Your task to perform on an android device: open app "AliExpress" (install if not already installed) Image 0: 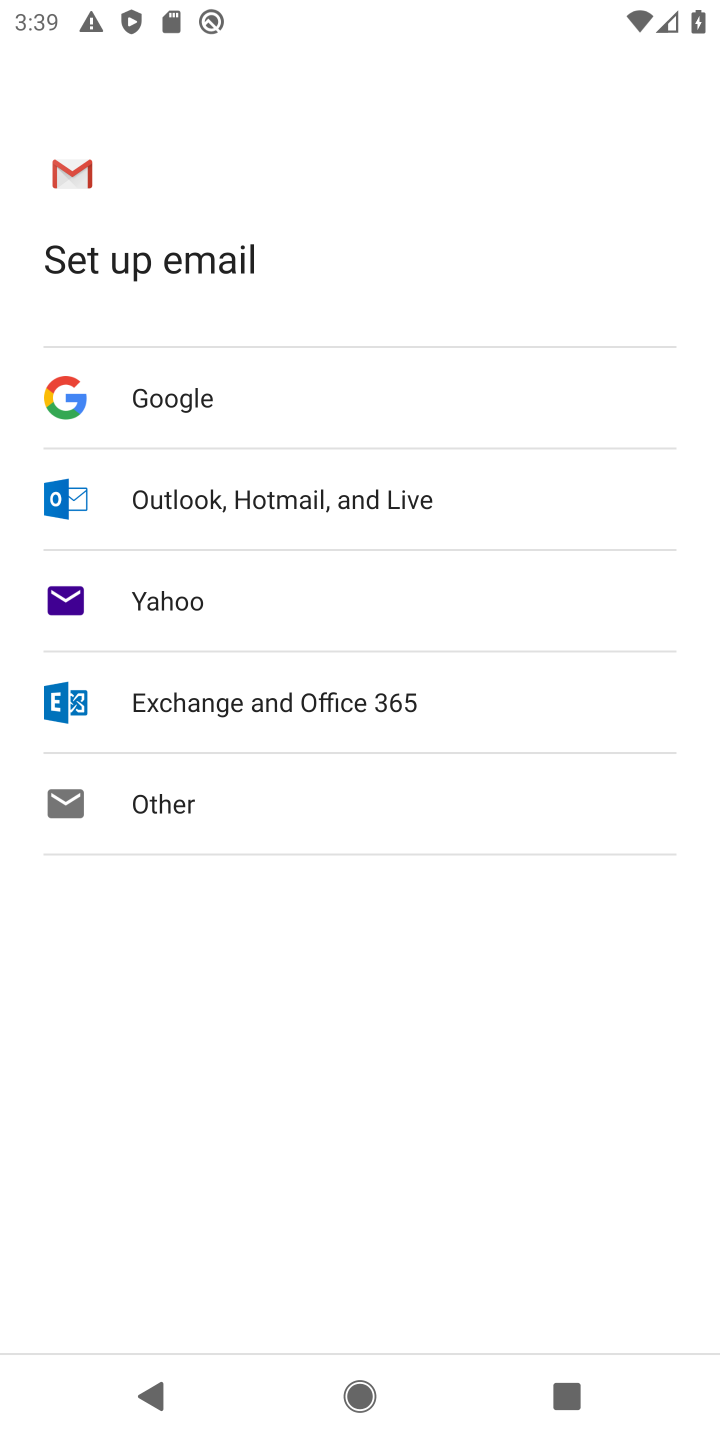
Step 0: press home button
Your task to perform on an android device: open app "AliExpress" (install if not already installed) Image 1: 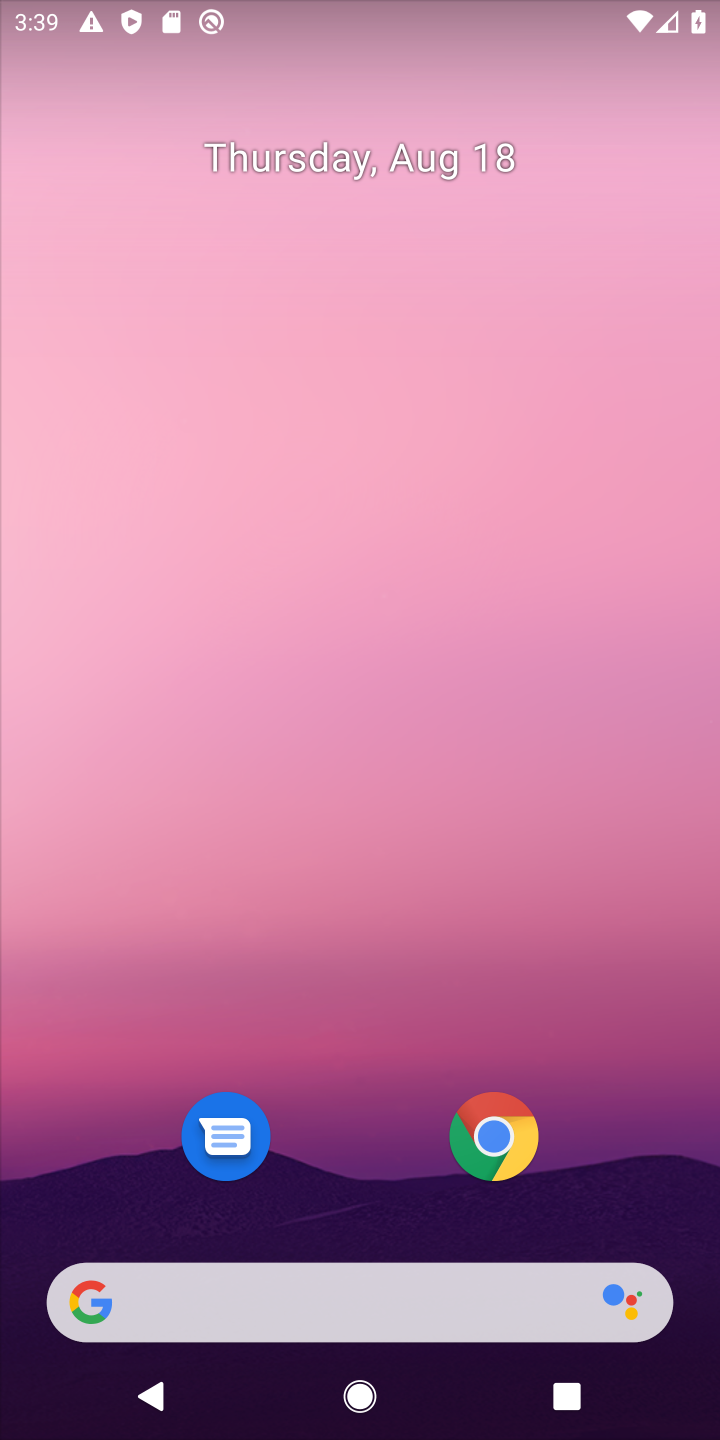
Step 1: drag from (359, 623) to (438, 162)
Your task to perform on an android device: open app "AliExpress" (install if not already installed) Image 2: 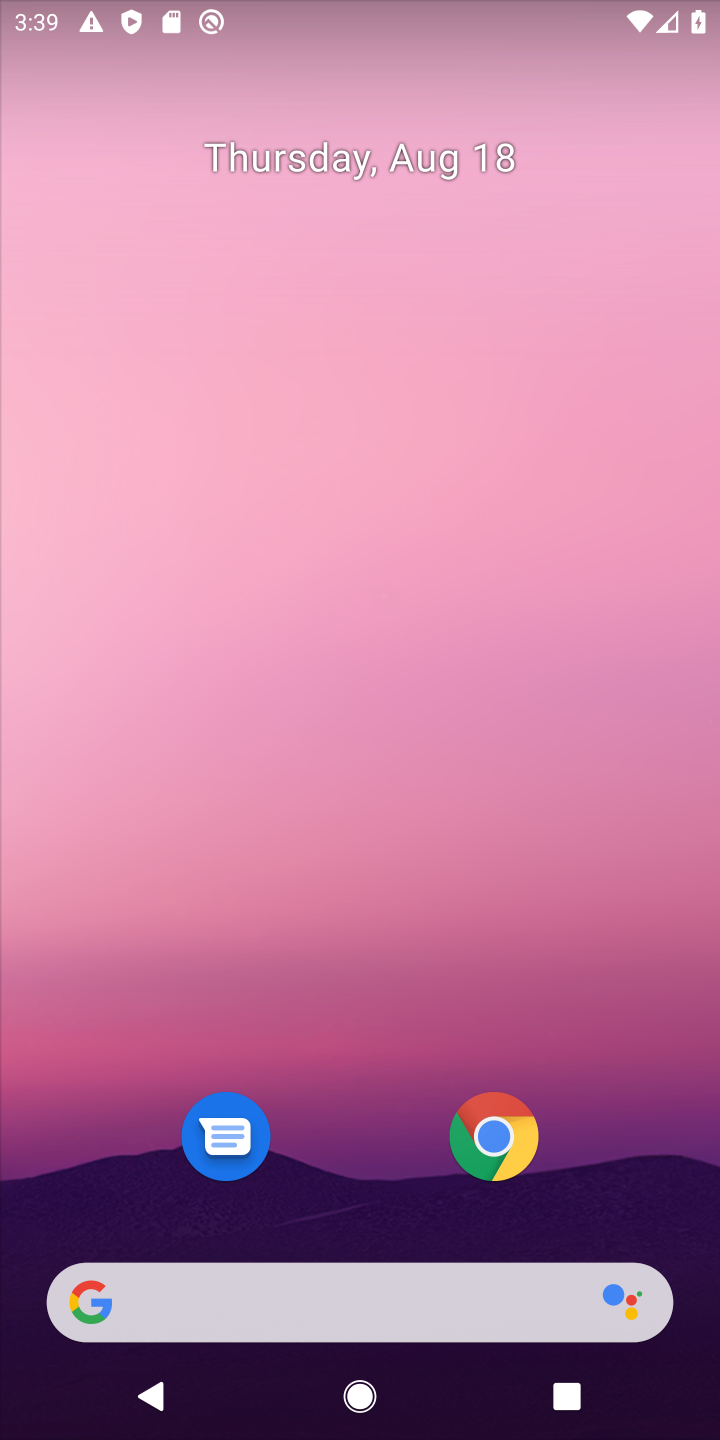
Step 2: drag from (322, 1202) to (361, 41)
Your task to perform on an android device: open app "AliExpress" (install if not already installed) Image 3: 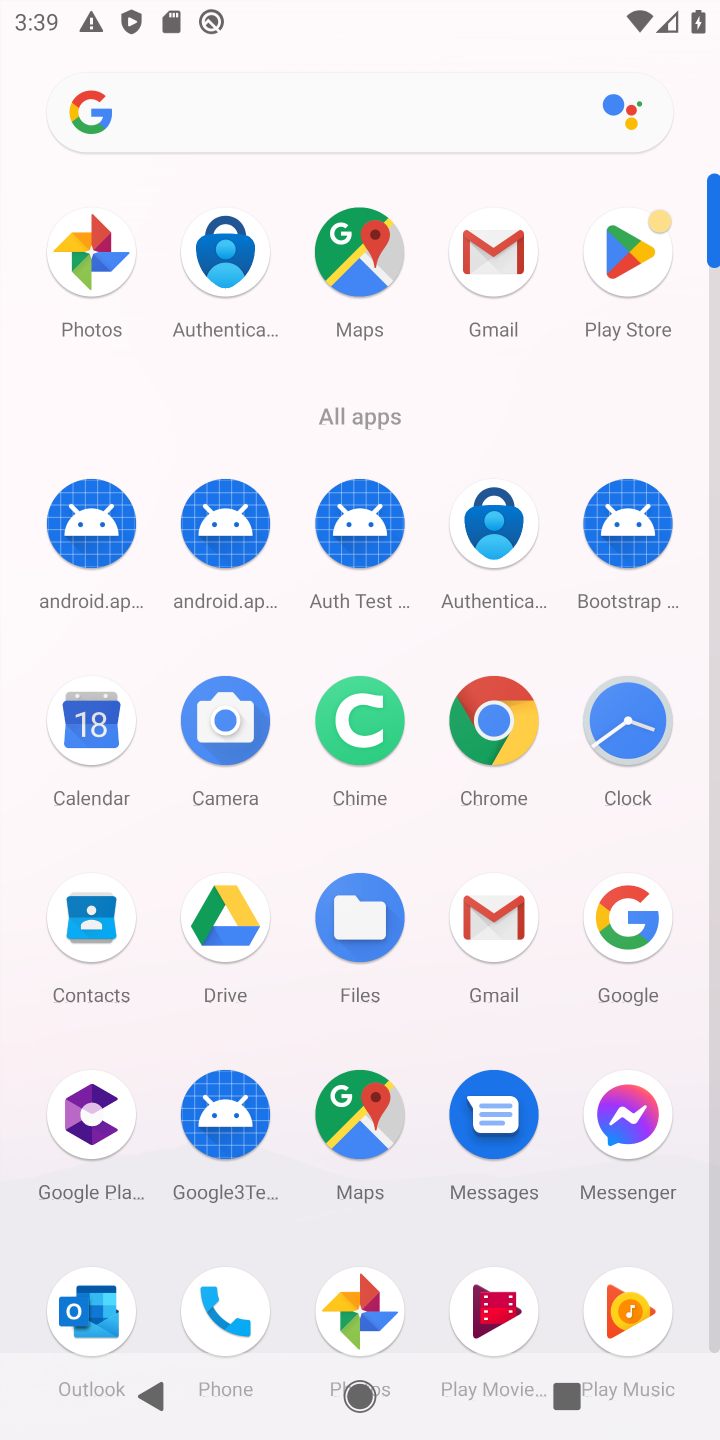
Step 3: click (631, 296)
Your task to perform on an android device: open app "AliExpress" (install if not already installed) Image 4: 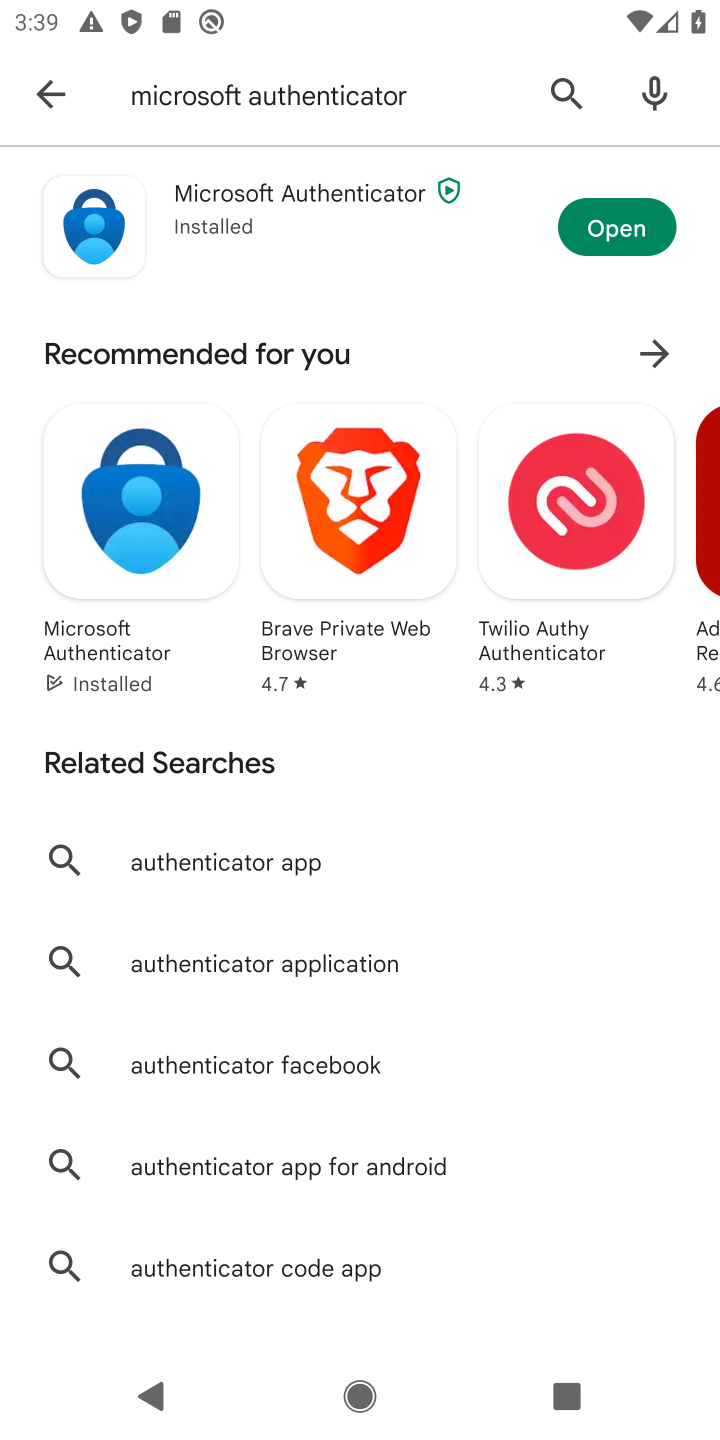
Step 4: click (335, 97)
Your task to perform on an android device: open app "AliExpress" (install if not already installed) Image 5: 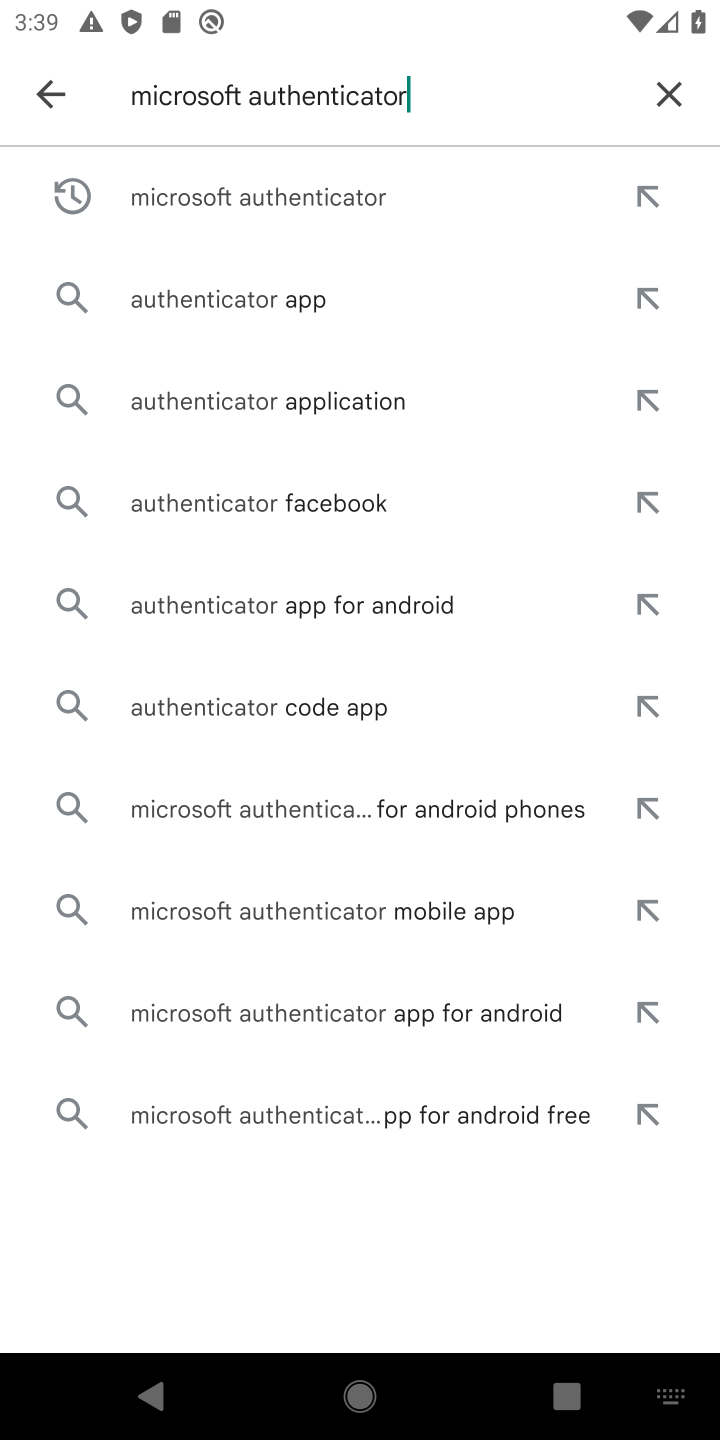
Step 5: click (670, 88)
Your task to perform on an android device: open app "AliExpress" (install if not already installed) Image 6: 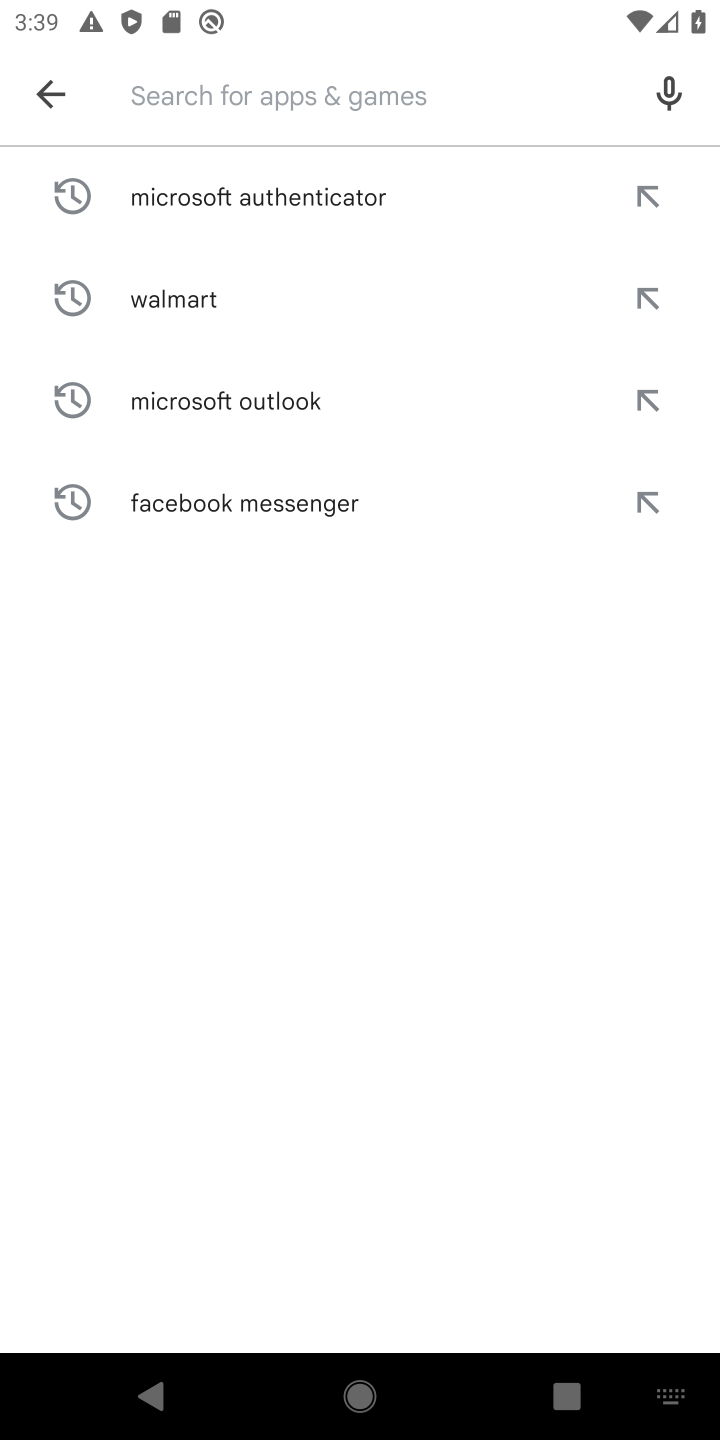
Step 6: type "AliExpress"
Your task to perform on an android device: open app "AliExpress" (install if not already installed) Image 7: 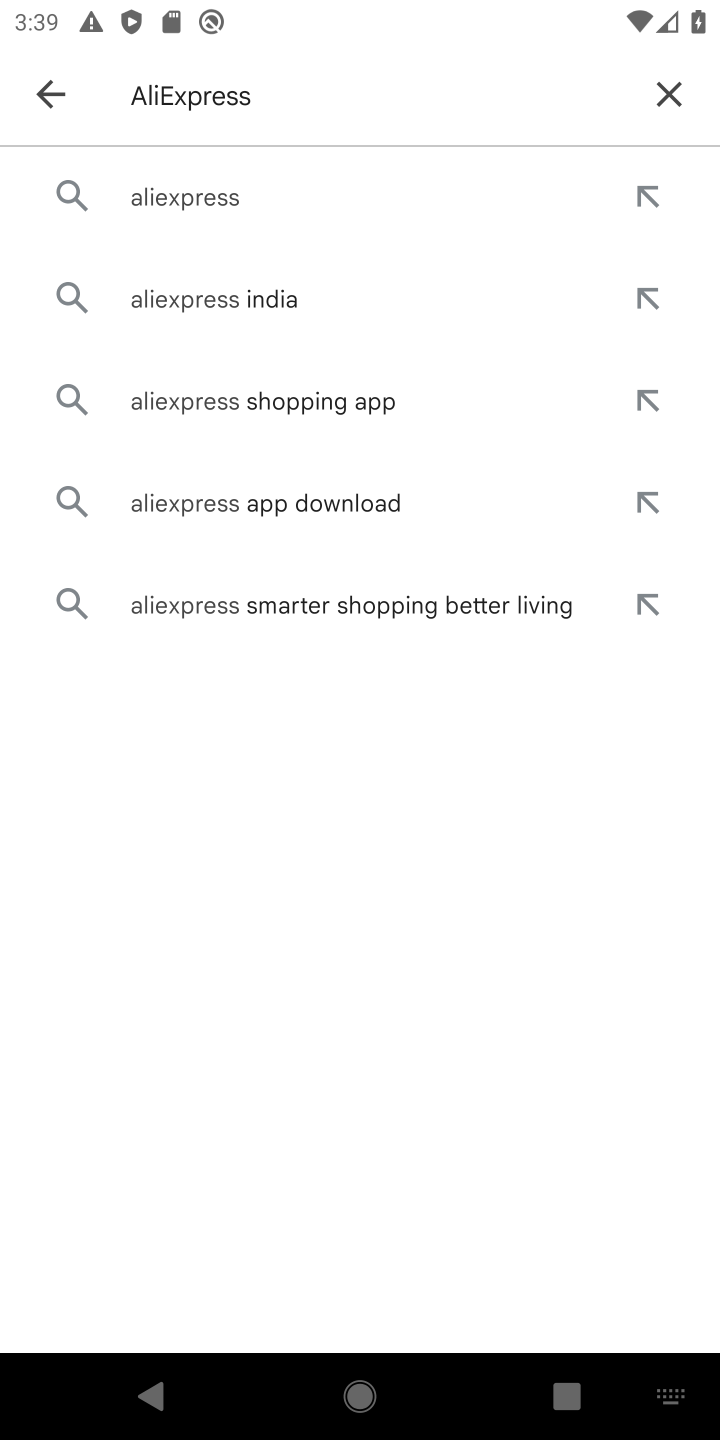
Step 7: click (187, 204)
Your task to perform on an android device: open app "AliExpress" (install if not already installed) Image 8: 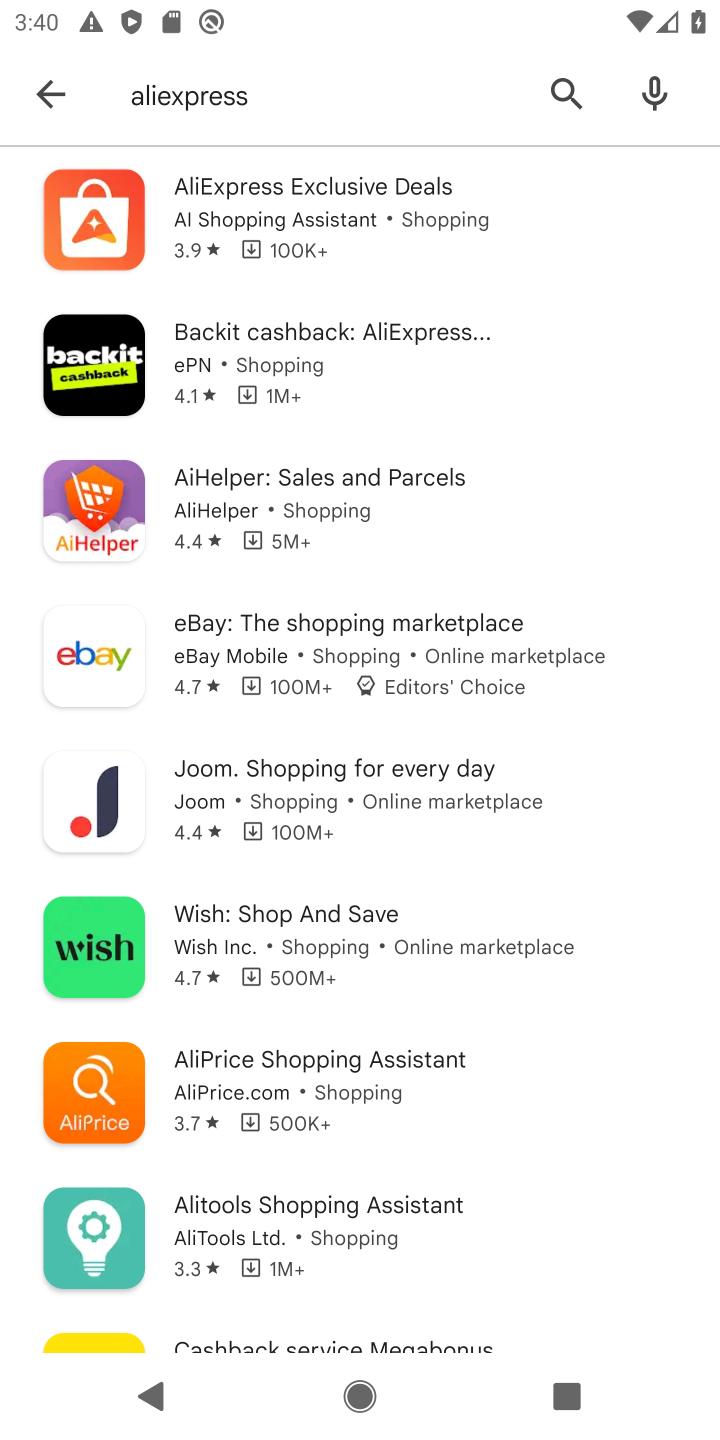
Step 8: click (234, 244)
Your task to perform on an android device: open app "AliExpress" (install if not already installed) Image 9: 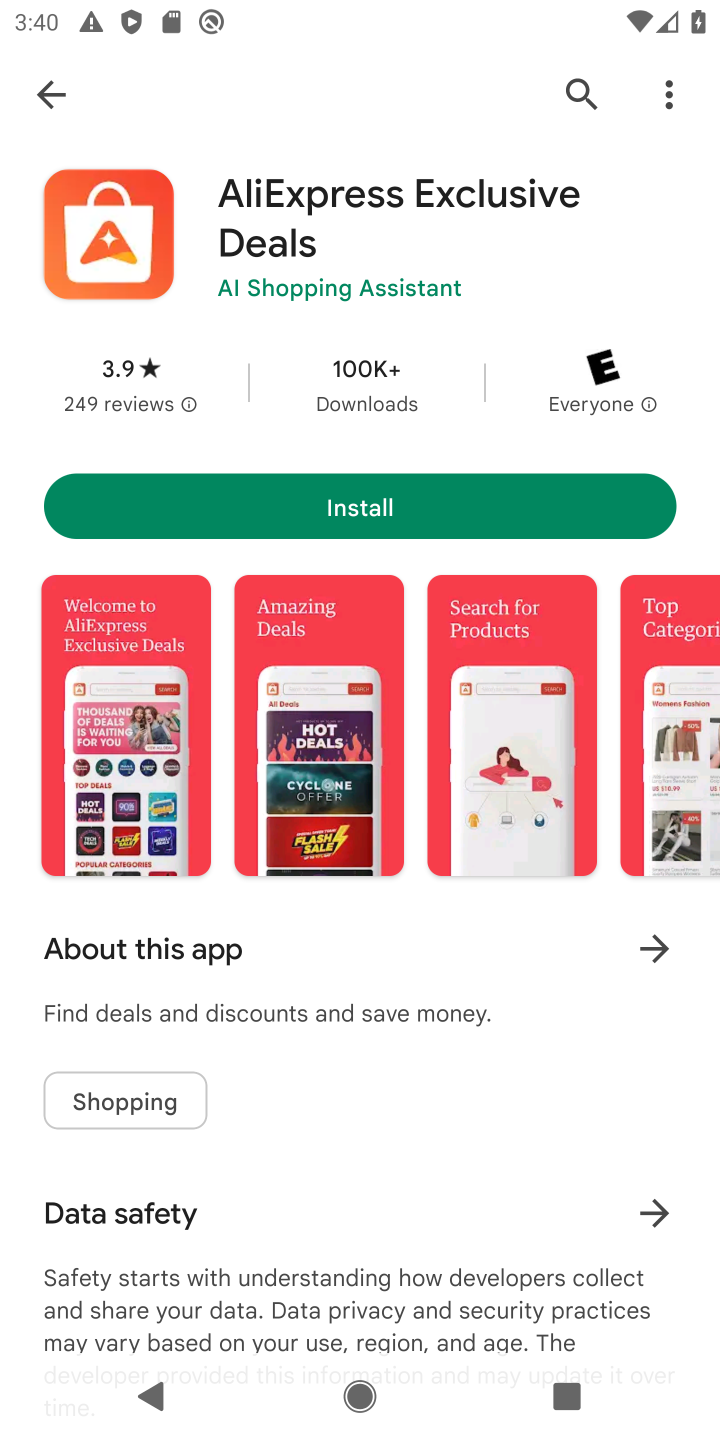
Step 9: click (415, 508)
Your task to perform on an android device: open app "AliExpress" (install if not already installed) Image 10: 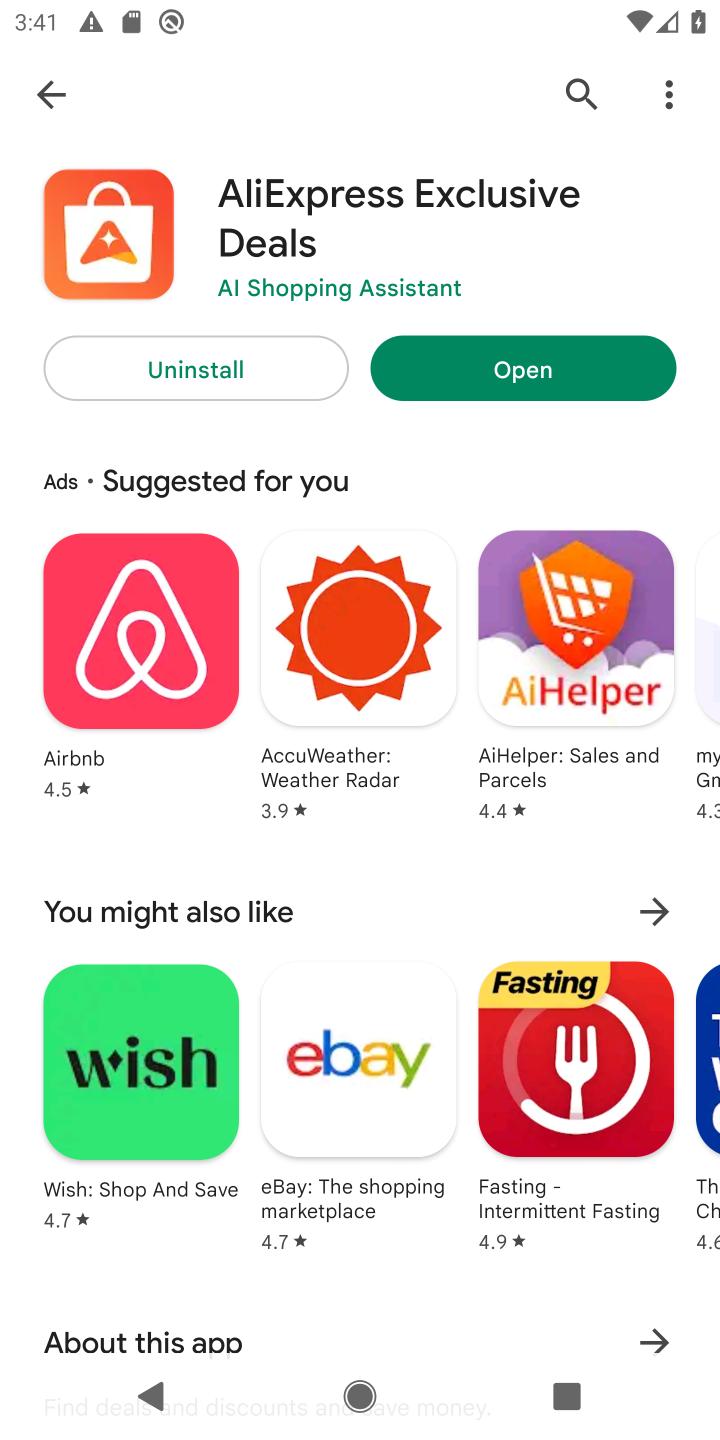
Step 10: click (581, 373)
Your task to perform on an android device: open app "AliExpress" (install if not already installed) Image 11: 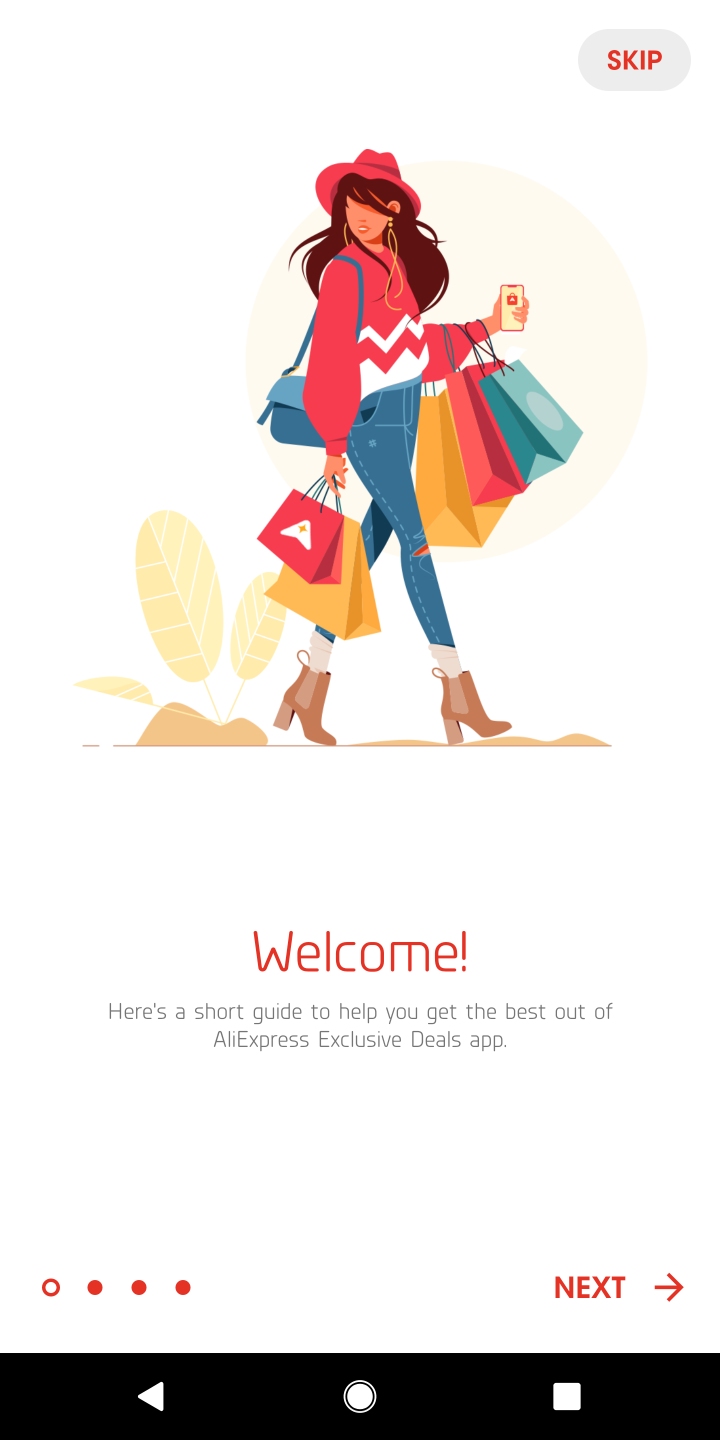
Step 11: click (652, 45)
Your task to perform on an android device: open app "AliExpress" (install if not already installed) Image 12: 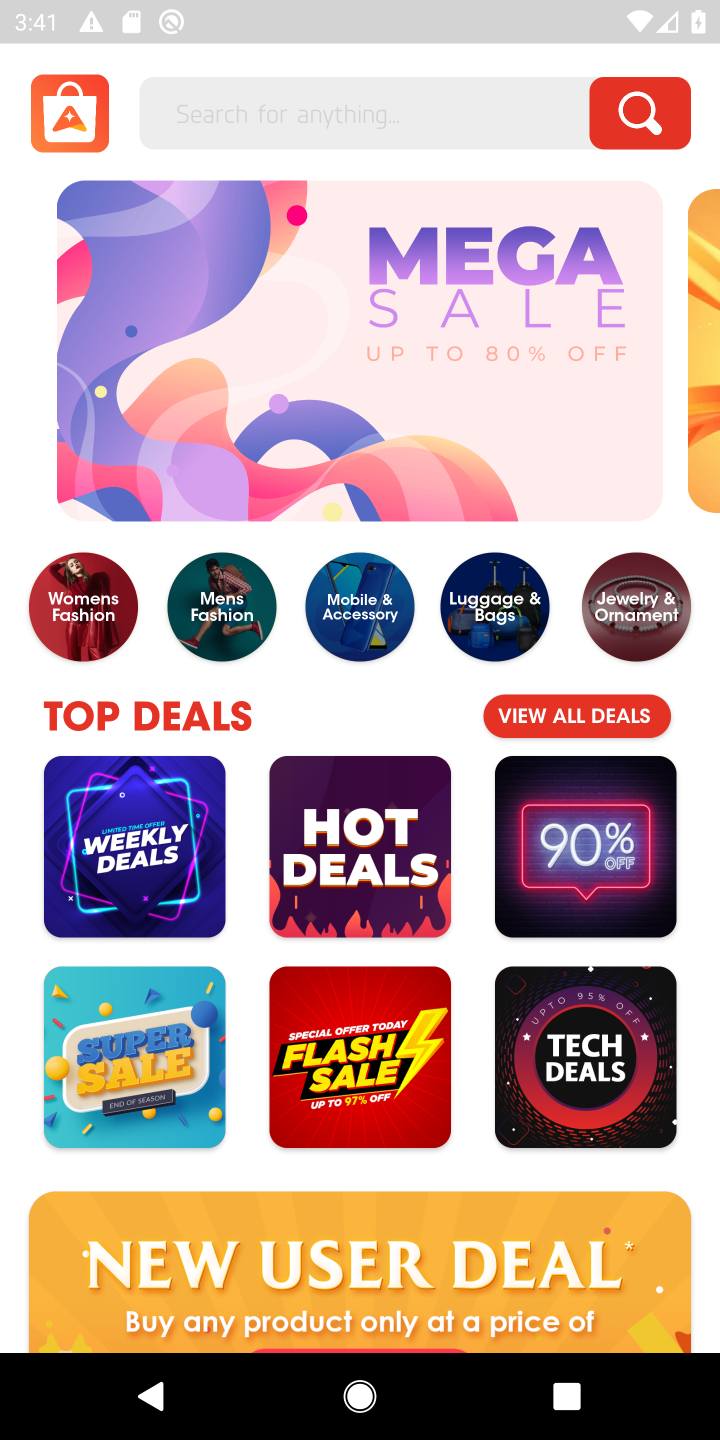
Step 12: task complete